Your task to perform on an android device: clear all cookies in the chrome app Image 0: 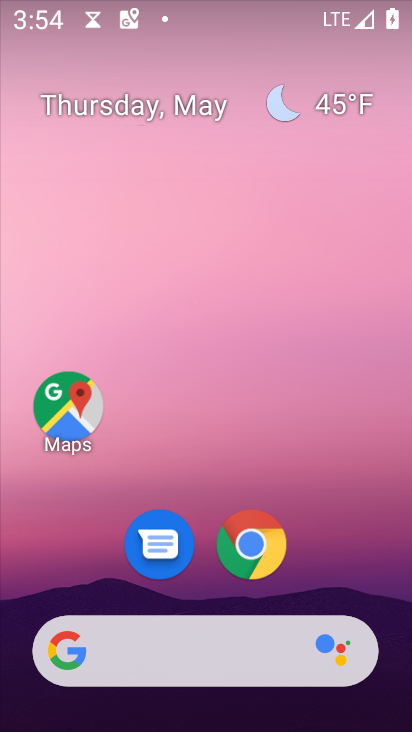
Step 0: click (259, 558)
Your task to perform on an android device: clear all cookies in the chrome app Image 1: 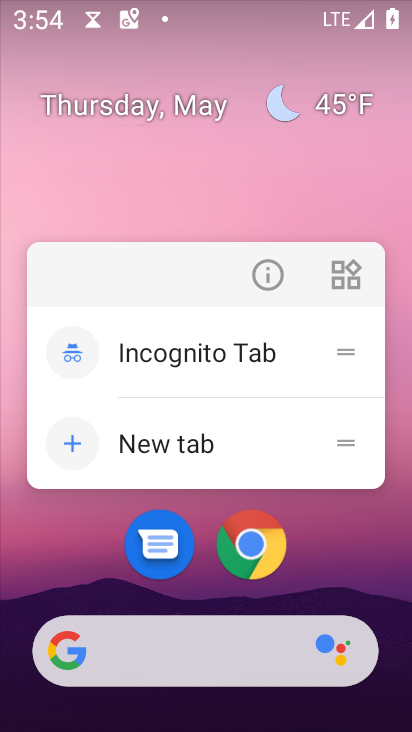
Step 1: click (256, 542)
Your task to perform on an android device: clear all cookies in the chrome app Image 2: 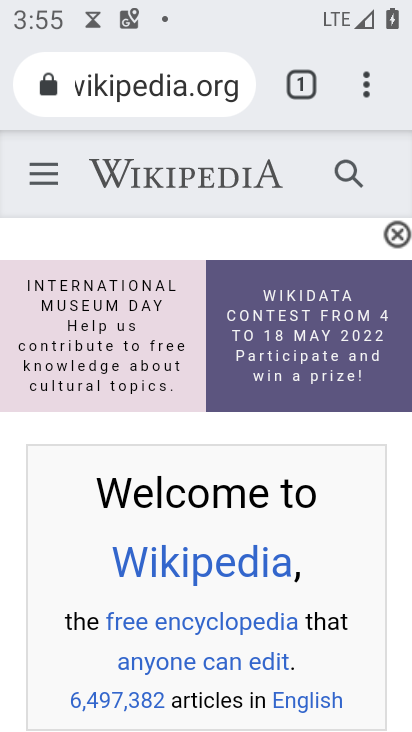
Step 2: click (364, 81)
Your task to perform on an android device: clear all cookies in the chrome app Image 3: 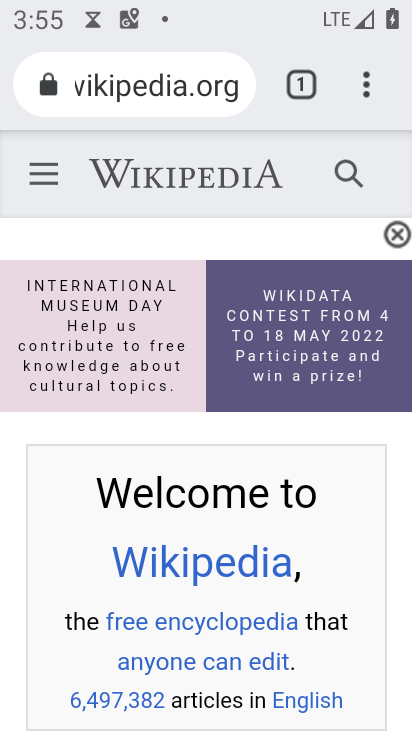
Step 3: click (368, 96)
Your task to perform on an android device: clear all cookies in the chrome app Image 4: 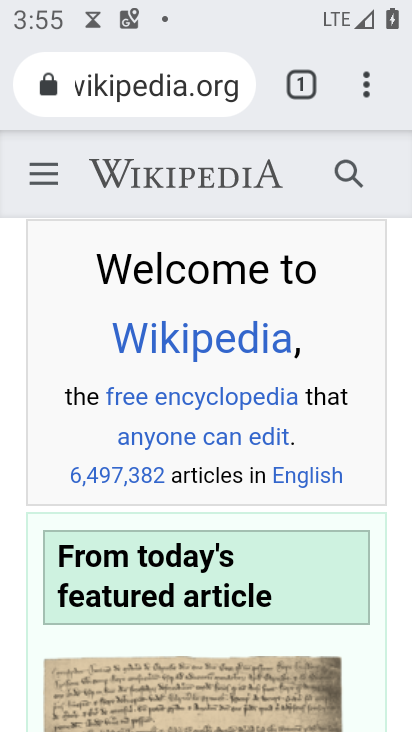
Step 4: click (375, 90)
Your task to perform on an android device: clear all cookies in the chrome app Image 5: 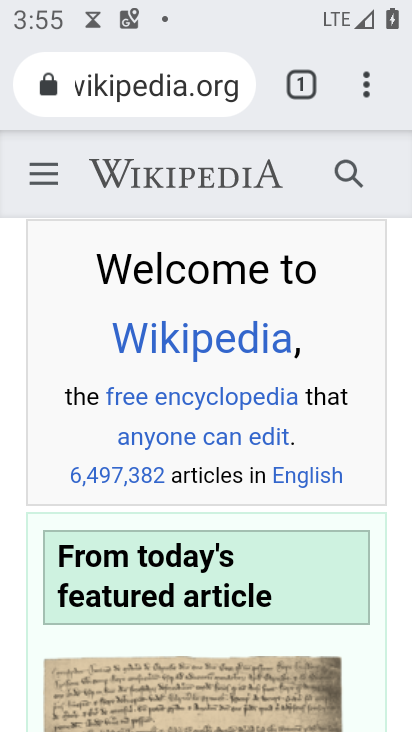
Step 5: click (367, 89)
Your task to perform on an android device: clear all cookies in the chrome app Image 6: 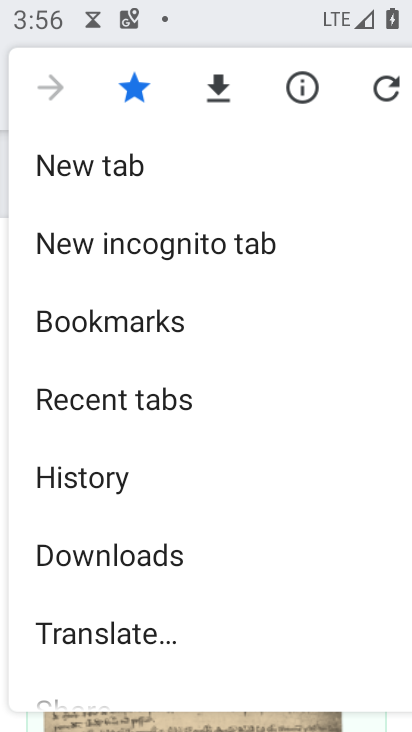
Step 6: click (90, 463)
Your task to perform on an android device: clear all cookies in the chrome app Image 7: 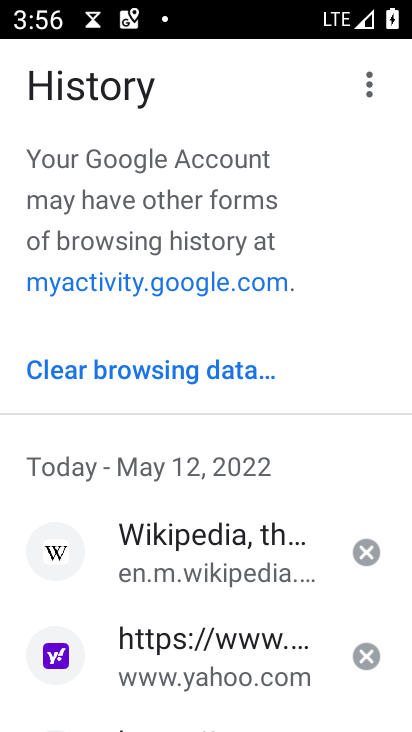
Step 7: click (147, 369)
Your task to perform on an android device: clear all cookies in the chrome app Image 8: 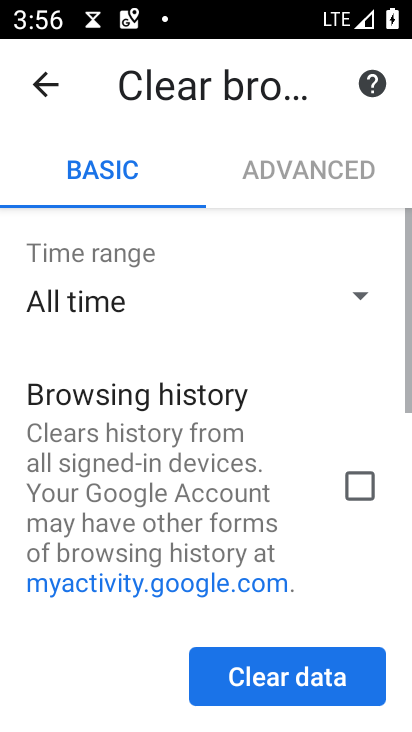
Step 8: drag from (246, 546) to (199, 212)
Your task to perform on an android device: clear all cookies in the chrome app Image 9: 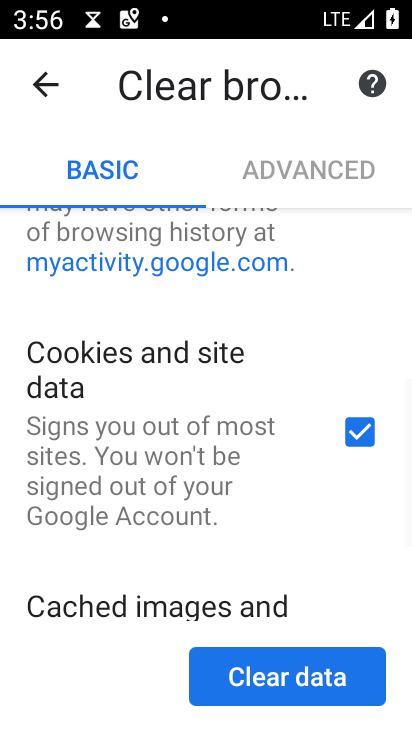
Step 9: drag from (205, 555) to (226, 361)
Your task to perform on an android device: clear all cookies in the chrome app Image 10: 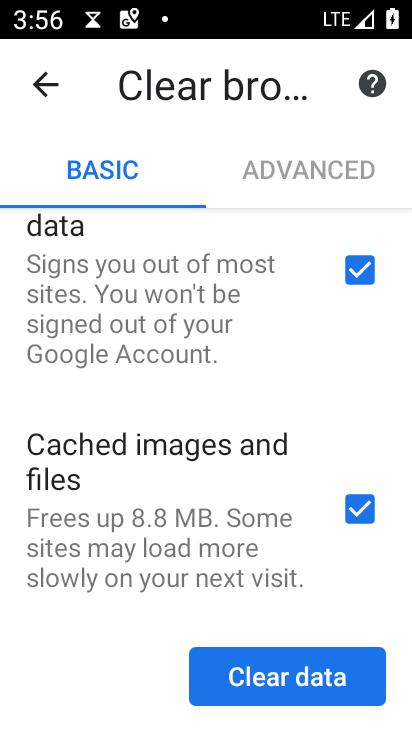
Step 10: click (237, 539)
Your task to perform on an android device: clear all cookies in the chrome app Image 11: 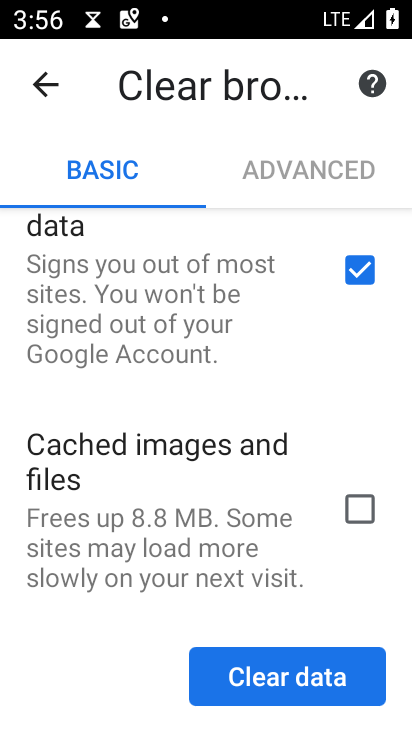
Step 11: click (270, 688)
Your task to perform on an android device: clear all cookies in the chrome app Image 12: 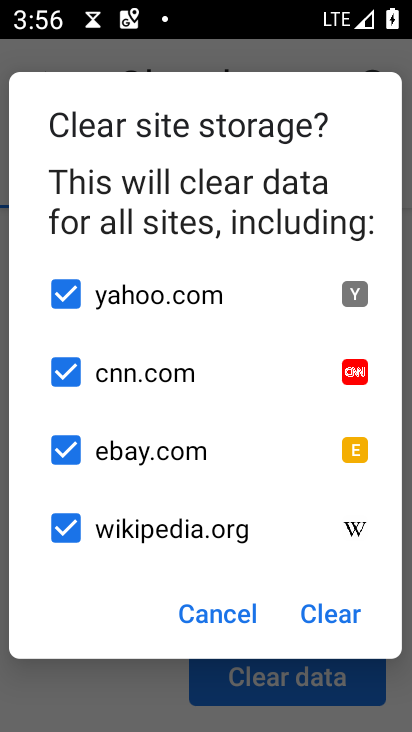
Step 12: click (339, 614)
Your task to perform on an android device: clear all cookies in the chrome app Image 13: 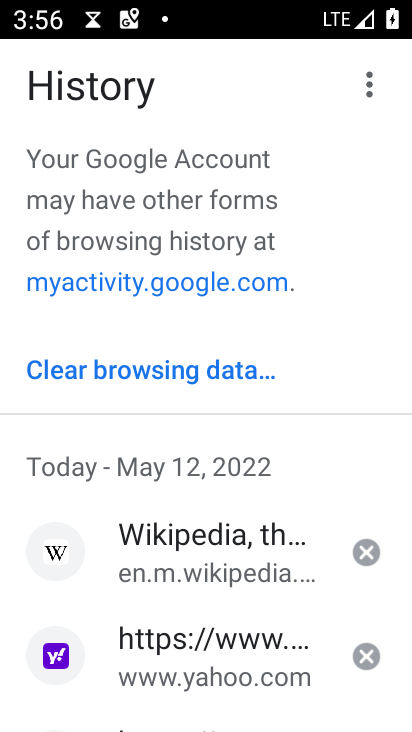
Step 13: task complete